Your task to perform on an android device: Go to eBay Image 0: 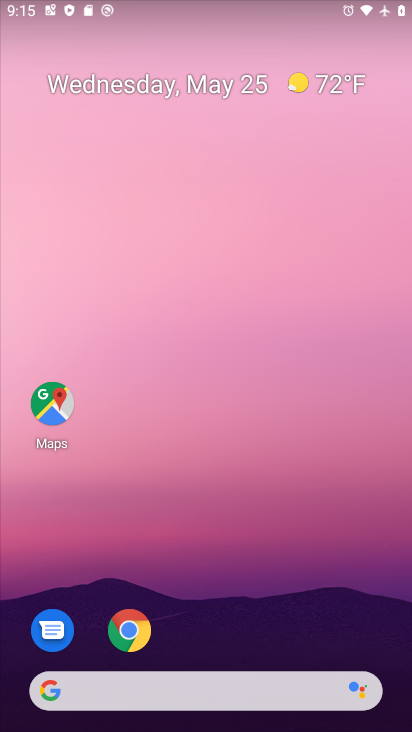
Step 0: click (133, 630)
Your task to perform on an android device: Go to eBay Image 1: 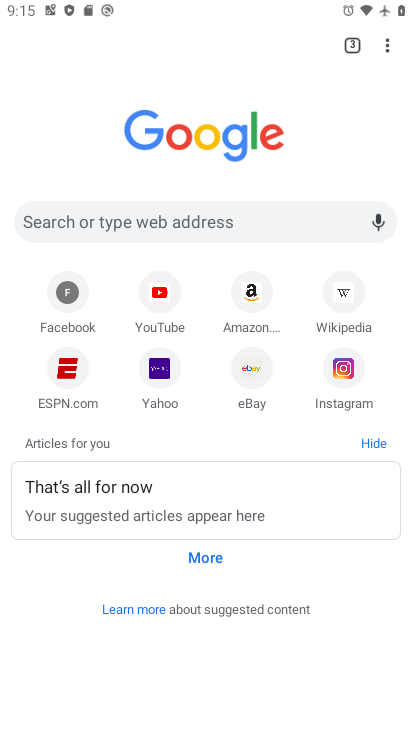
Step 1: click (257, 367)
Your task to perform on an android device: Go to eBay Image 2: 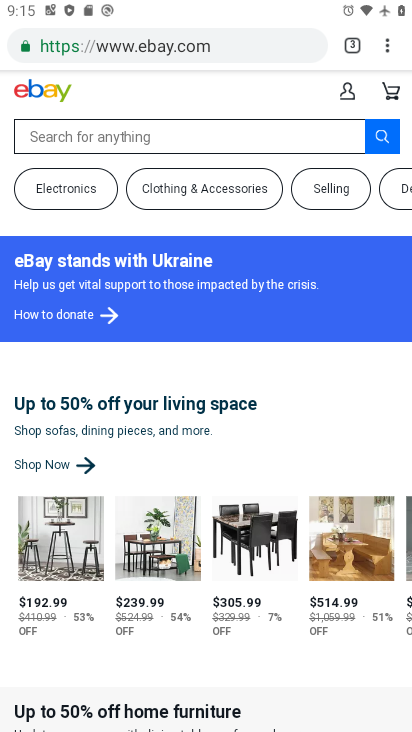
Step 2: task complete